Your task to perform on an android device: Go to Wikipedia Image 0: 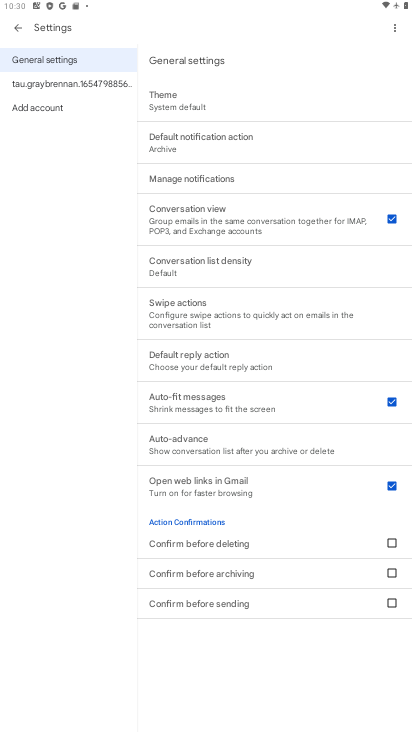
Step 0: press home button
Your task to perform on an android device: Go to Wikipedia Image 1: 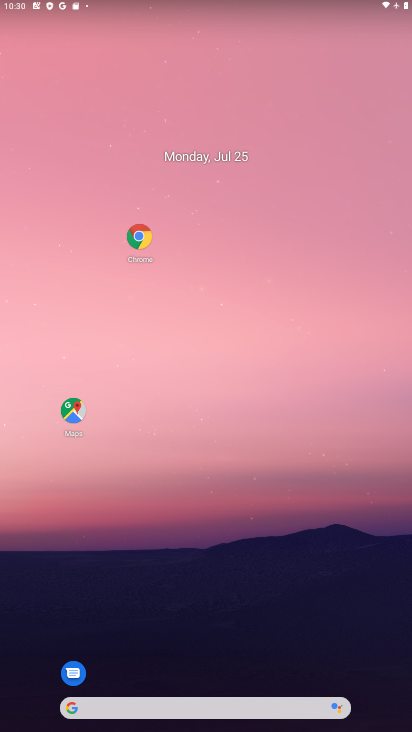
Step 1: click (248, 703)
Your task to perform on an android device: Go to Wikipedia Image 2: 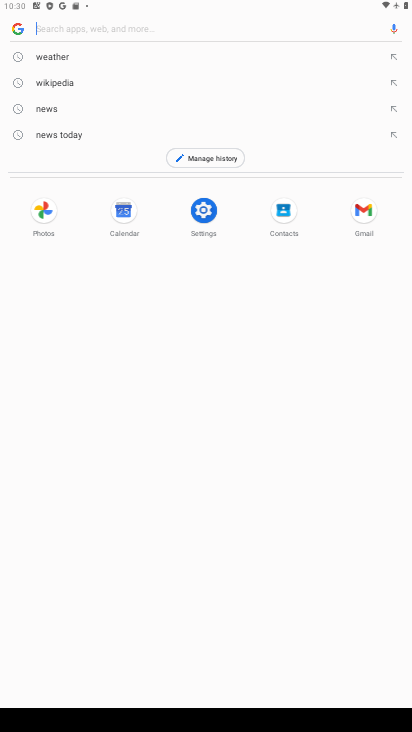
Step 2: type "wikipedia"
Your task to perform on an android device: Go to Wikipedia Image 3: 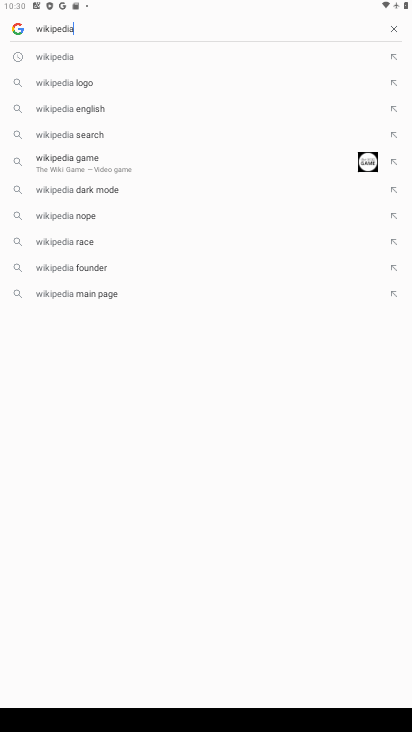
Step 3: click (112, 56)
Your task to perform on an android device: Go to Wikipedia Image 4: 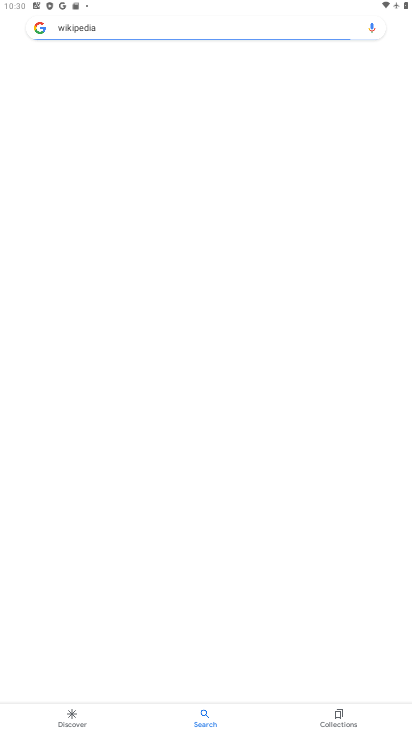
Step 4: task complete